Your task to perform on an android device: Open CNN.com Image 0: 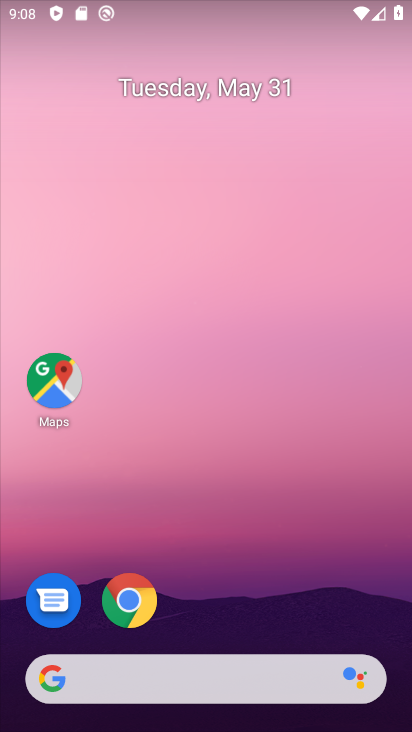
Step 0: click (131, 606)
Your task to perform on an android device: Open CNN.com Image 1: 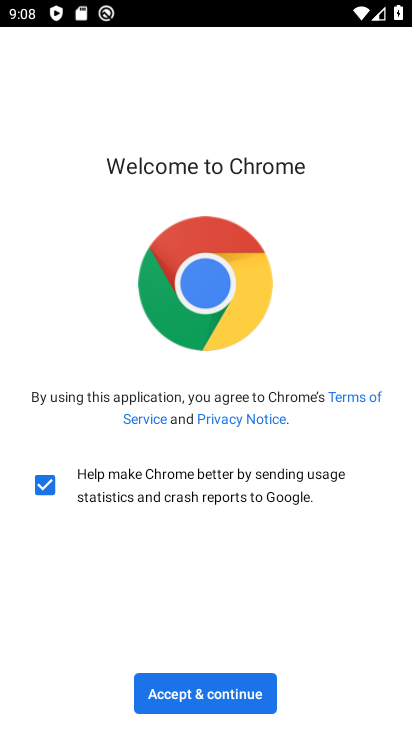
Step 1: click (206, 689)
Your task to perform on an android device: Open CNN.com Image 2: 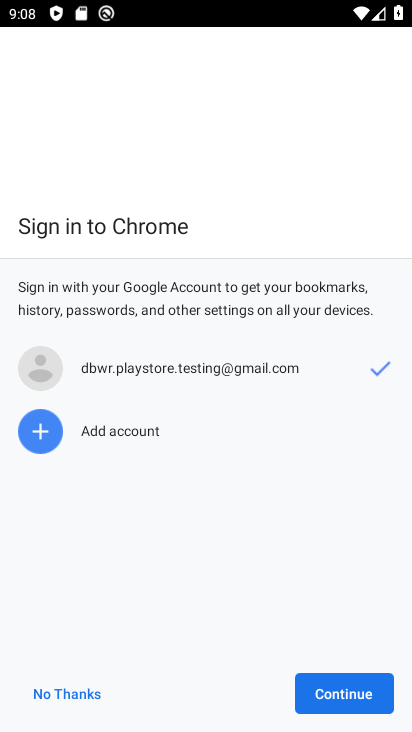
Step 2: click (376, 692)
Your task to perform on an android device: Open CNN.com Image 3: 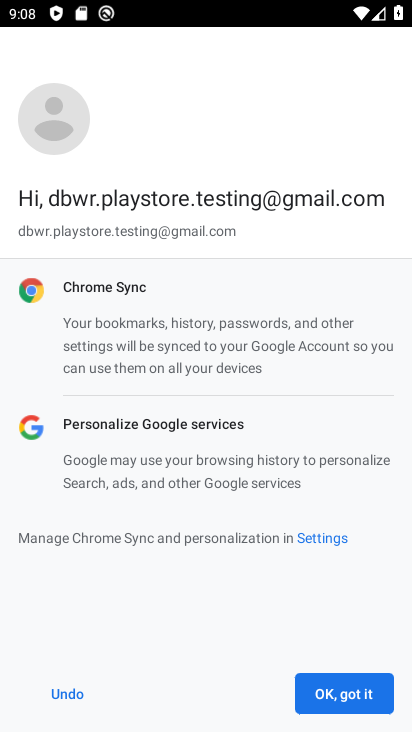
Step 3: click (378, 691)
Your task to perform on an android device: Open CNN.com Image 4: 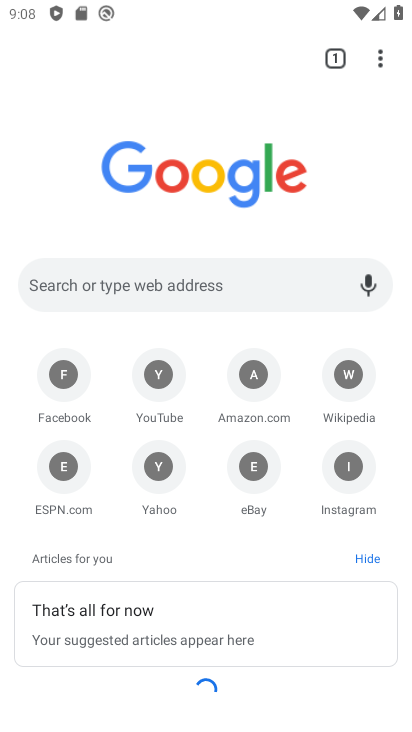
Step 4: click (119, 284)
Your task to perform on an android device: Open CNN.com Image 5: 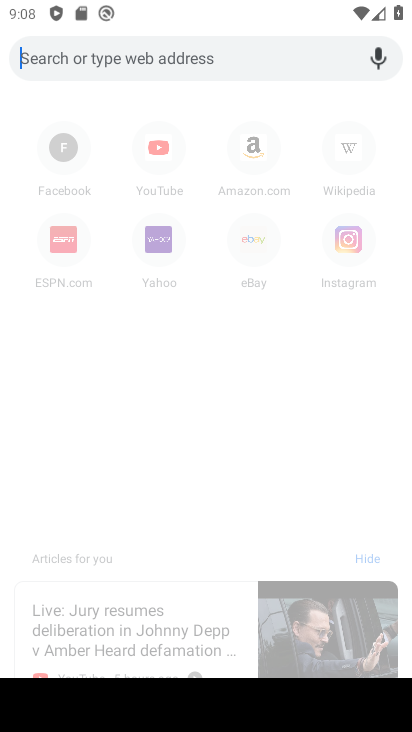
Step 5: type "cnn.com"
Your task to perform on an android device: Open CNN.com Image 6: 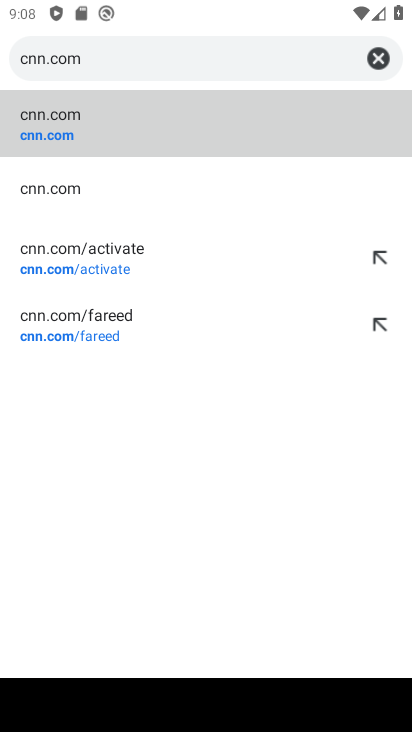
Step 6: click (92, 129)
Your task to perform on an android device: Open CNN.com Image 7: 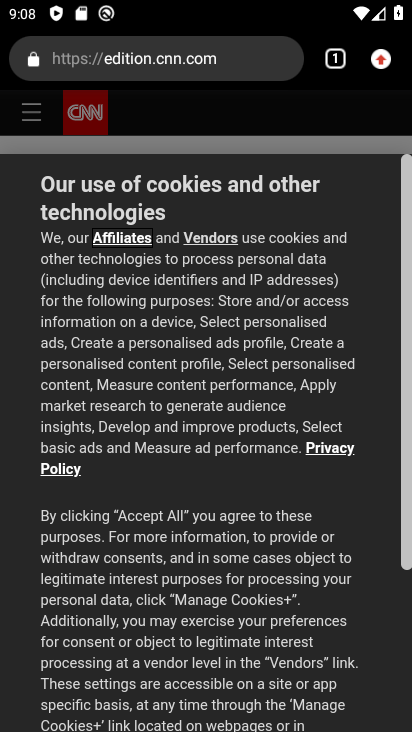
Step 7: task complete